Your task to perform on an android device: Open the stopwatch Image 0: 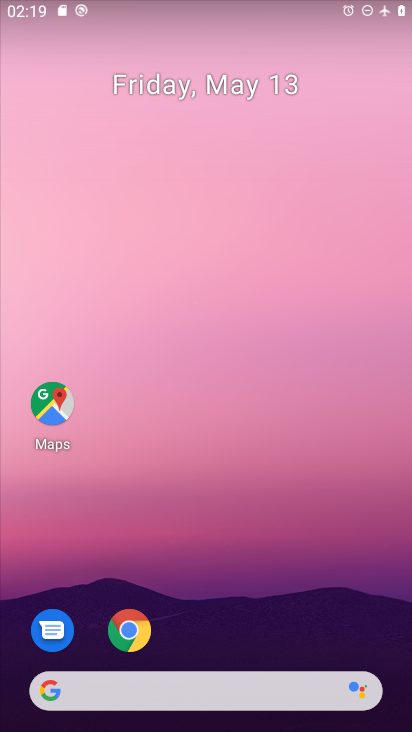
Step 0: drag from (222, 721) to (130, 216)
Your task to perform on an android device: Open the stopwatch Image 1: 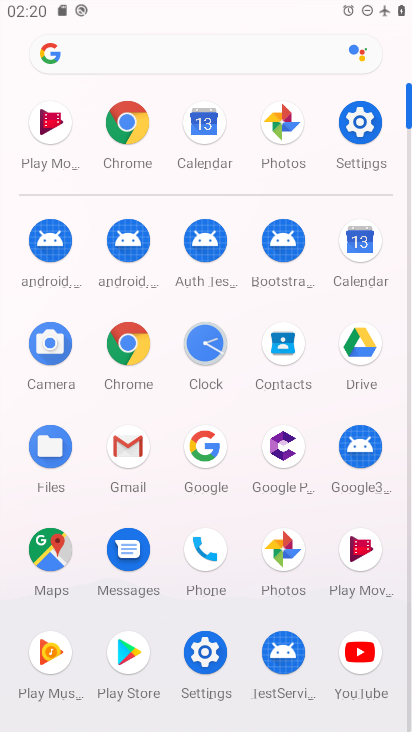
Step 1: click (204, 345)
Your task to perform on an android device: Open the stopwatch Image 2: 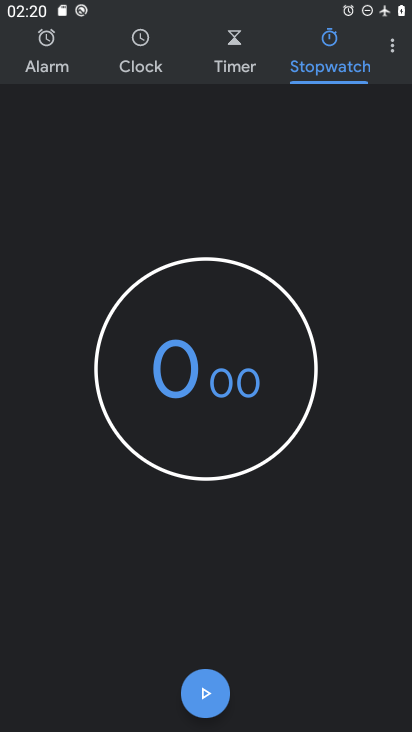
Step 2: click (382, 66)
Your task to perform on an android device: Open the stopwatch Image 3: 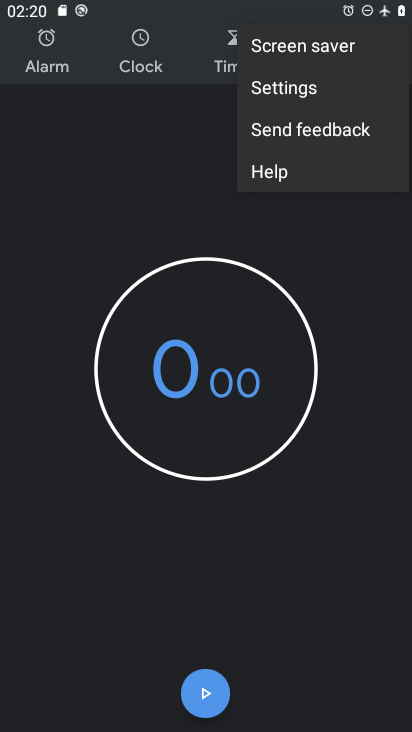
Step 3: click (304, 96)
Your task to perform on an android device: Open the stopwatch Image 4: 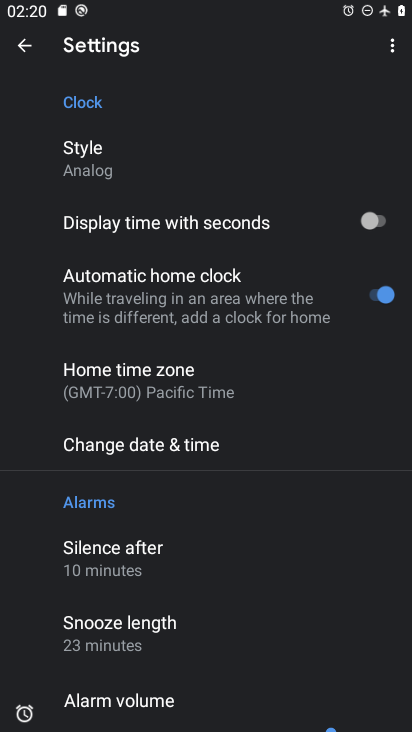
Step 4: click (14, 51)
Your task to perform on an android device: Open the stopwatch Image 5: 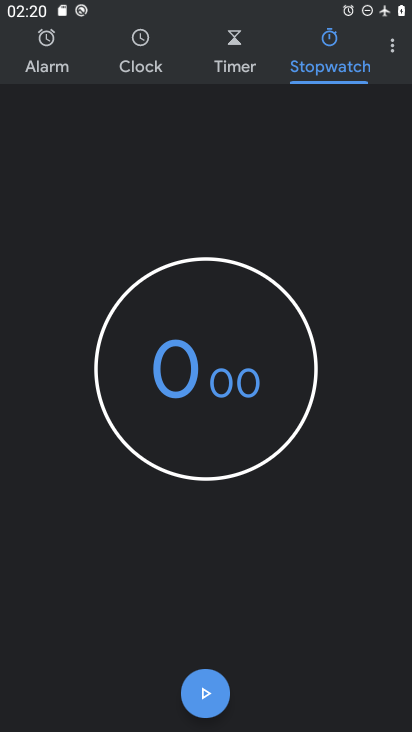
Step 5: task complete